Your task to perform on an android device: turn notification dots off Image 0: 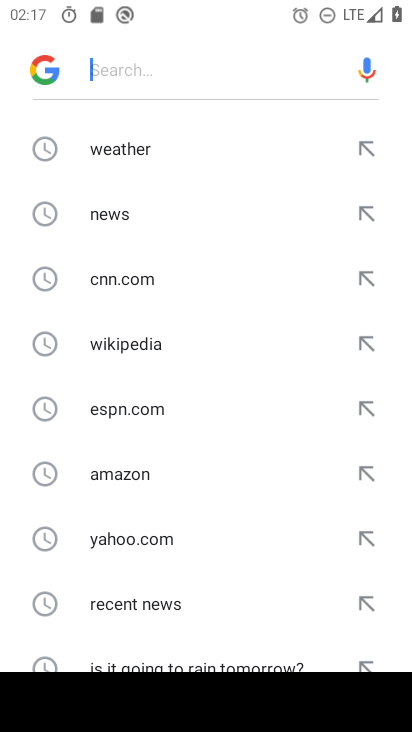
Step 0: press home button
Your task to perform on an android device: turn notification dots off Image 1: 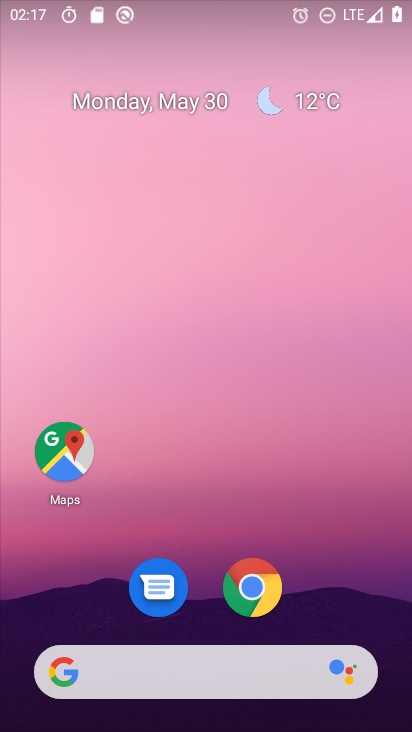
Step 1: drag from (343, 421) to (240, 120)
Your task to perform on an android device: turn notification dots off Image 2: 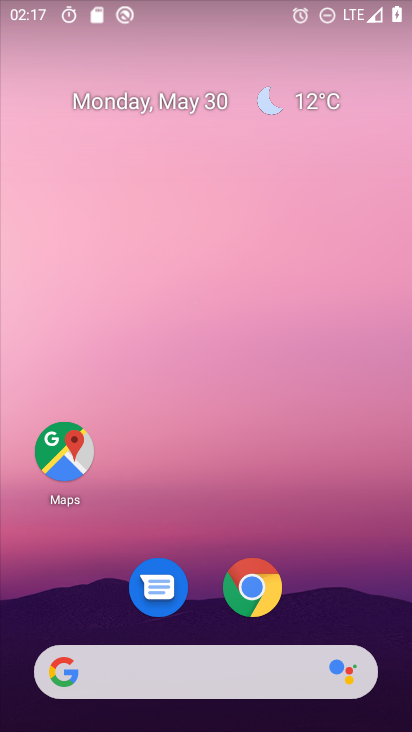
Step 2: drag from (329, 506) to (167, 0)
Your task to perform on an android device: turn notification dots off Image 3: 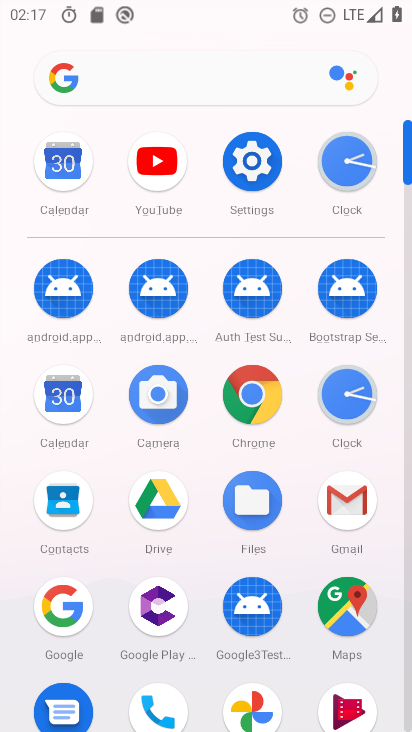
Step 3: click (259, 140)
Your task to perform on an android device: turn notification dots off Image 4: 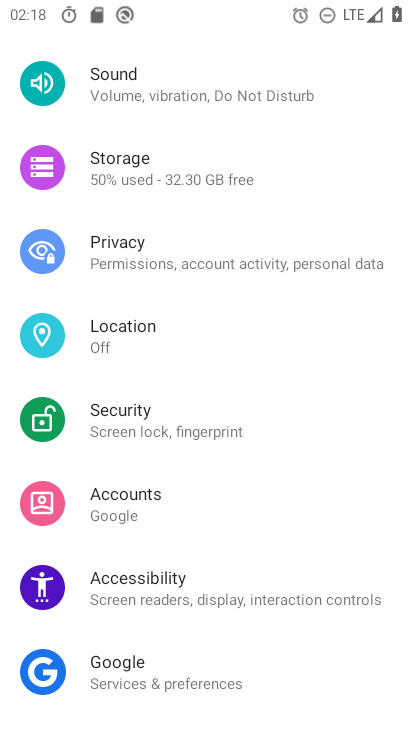
Step 4: drag from (217, 159) to (246, 672)
Your task to perform on an android device: turn notification dots off Image 5: 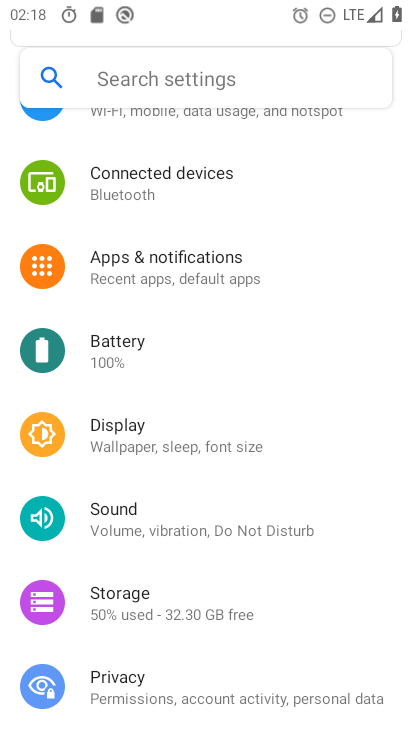
Step 5: drag from (194, 217) to (222, 565)
Your task to perform on an android device: turn notification dots off Image 6: 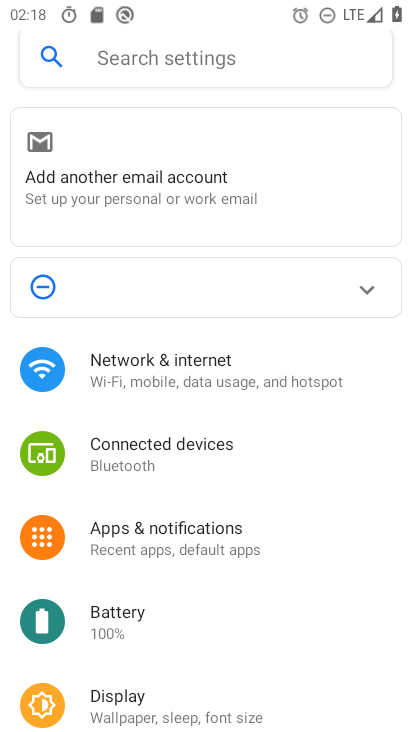
Step 6: click (201, 530)
Your task to perform on an android device: turn notification dots off Image 7: 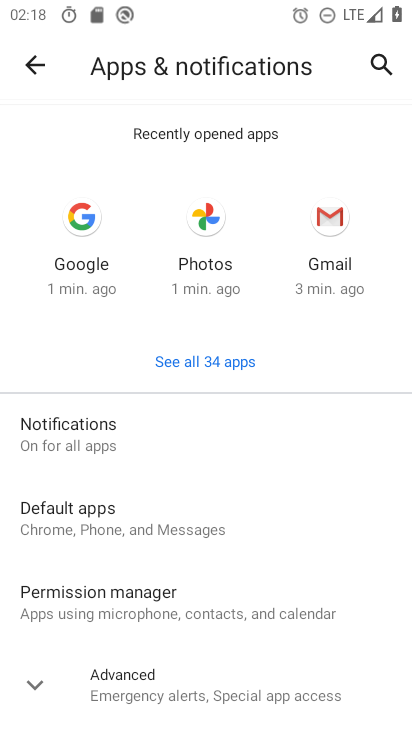
Step 7: click (77, 442)
Your task to perform on an android device: turn notification dots off Image 8: 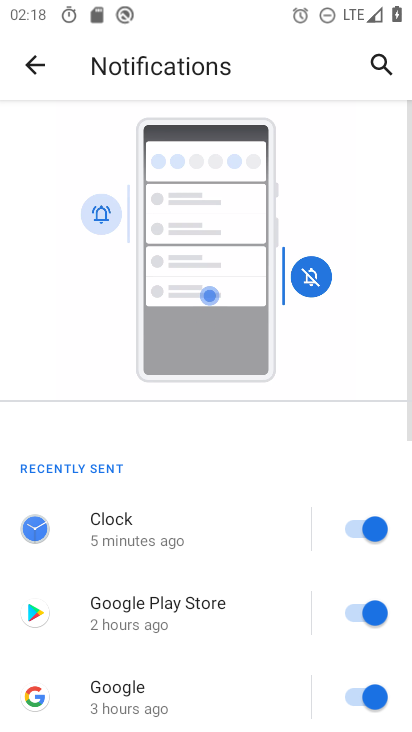
Step 8: drag from (225, 532) to (249, 74)
Your task to perform on an android device: turn notification dots off Image 9: 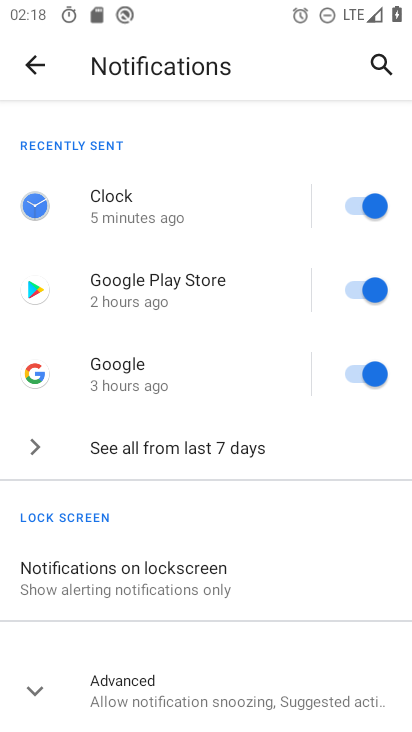
Step 9: click (182, 709)
Your task to perform on an android device: turn notification dots off Image 10: 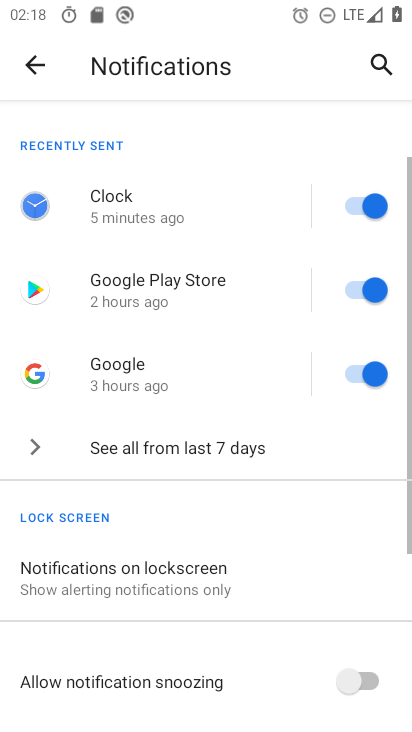
Step 10: task complete